Your task to perform on an android device: add a label to a message in the gmail app Image 0: 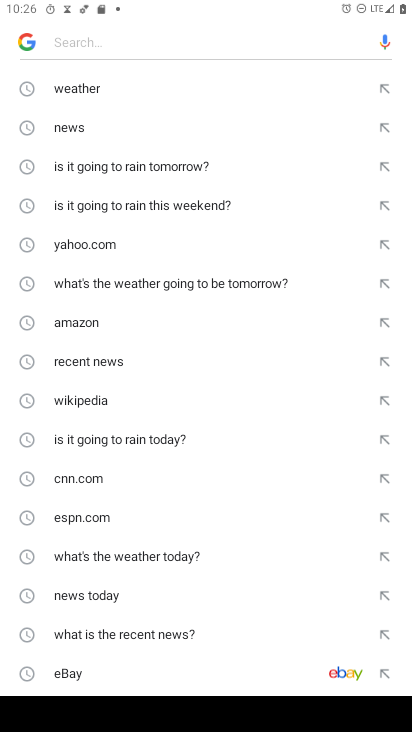
Step 0: press home button
Your task to perform on an android device: add a label to a message in the gmail app Image 1: 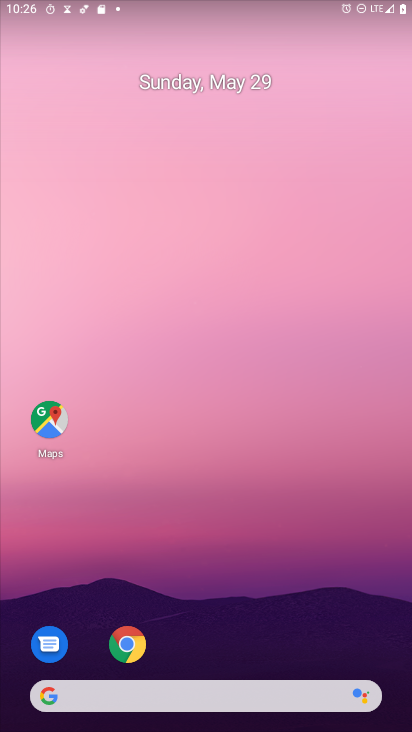
Step 1: drag from (103, 730) to (116, 1)
Your task to perform on an android device: add a label to a message in the gmail app Image 2: 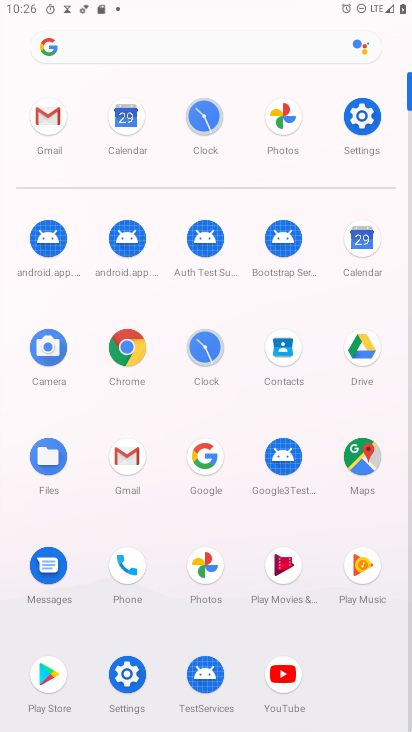
Step 2: click (47, 126)
Your task to perform on an android device: add a label to a message in the gmail app Image 3: 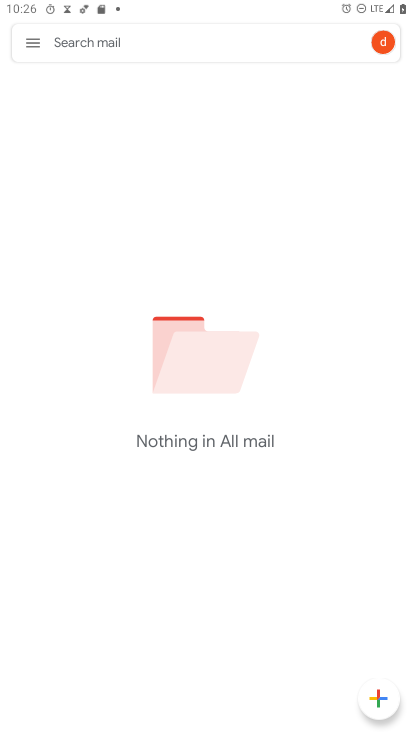
Step 3: click (33, 48)
Your task to perform on an android device: add a label to a message in the gmail app Image 4: 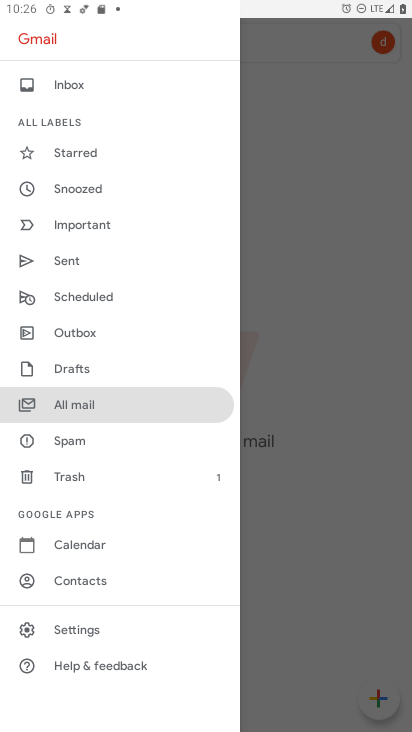
Step 4: click (42, 88)
Your task to perform on an android device: add a label to a message in the gmail app Image 5: 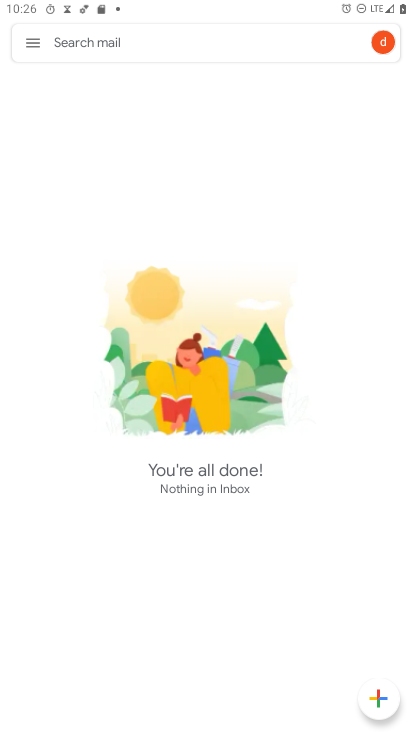
Step 5: click (37, 42)
Your task to perform on an android device: add a label to a message in the gmail app Image 6: 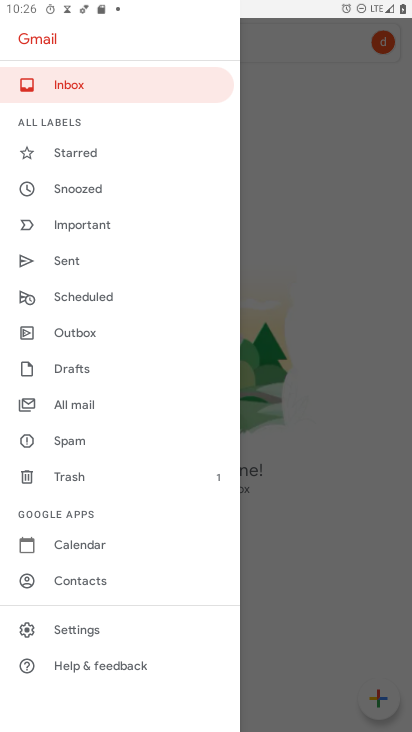
Step 6: click (85, 408)
Your task to perform on an android device: add a label to a message in the gmail app Image 7: 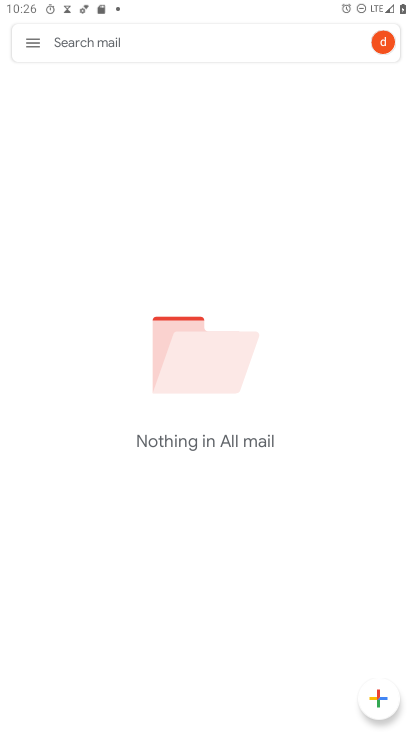
Step 7: task complete